Your task to perform on an android device: Add logitech g903 to the cart on amazon.com Image 0: 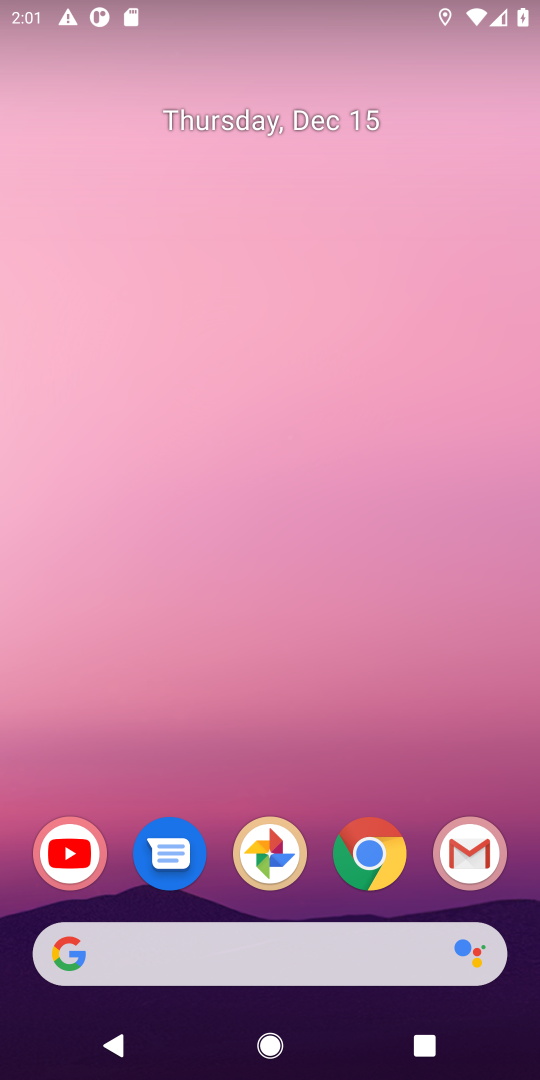
Step 0: drag from (187, 848) to (236, 125)
Your task to perform on an android device: Add logitech g903 to the cart on amazon.com Image 1: 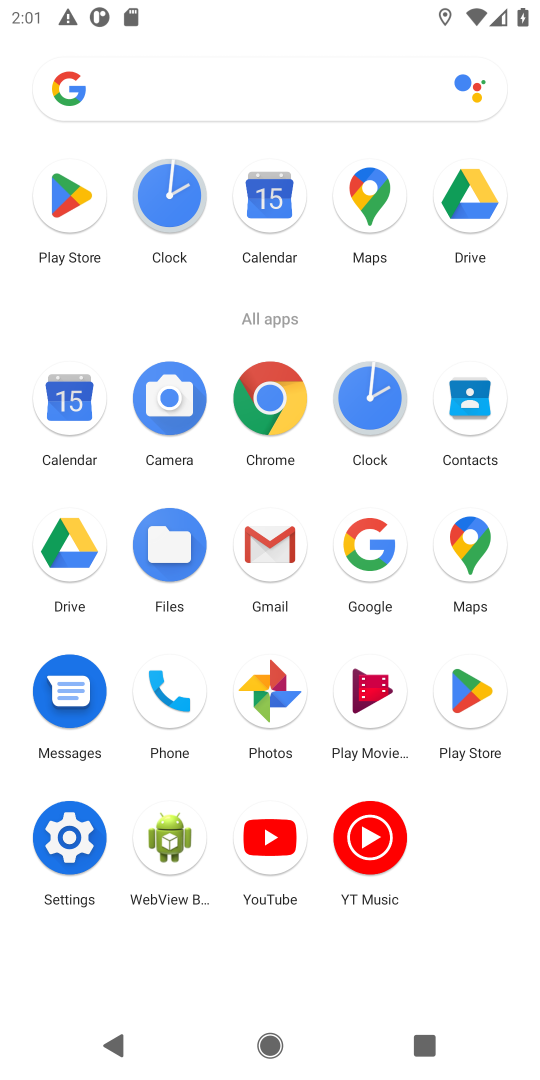
Step 1: click (353, 538)
Your task to perform on an android device: Add logitech g903 to the cart on amazon.com Image 2: 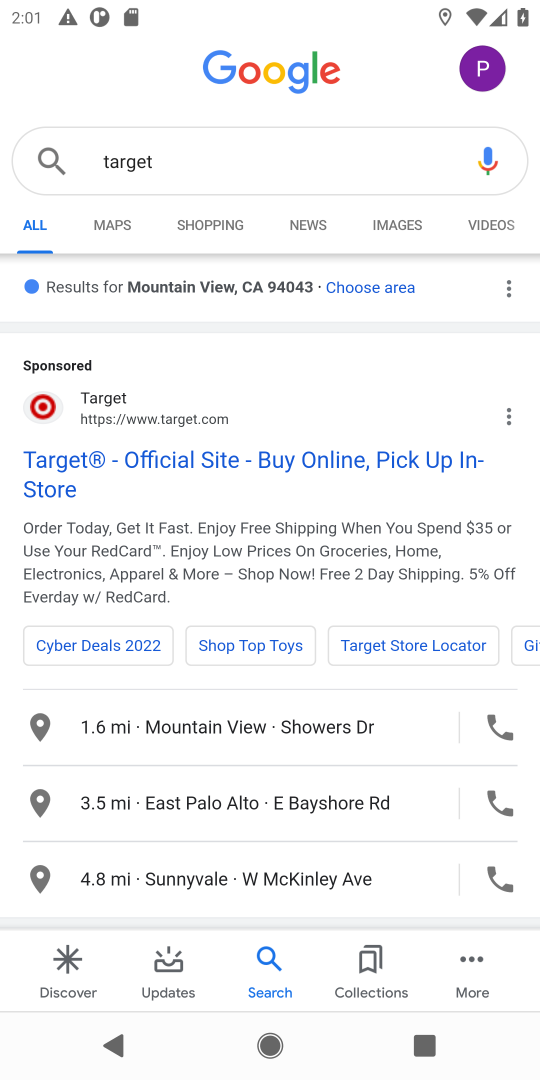
Step 2: click (134, 154)
Your task to perform on an android device: Add logitech g903 to the cart on amazon.com Image 3: 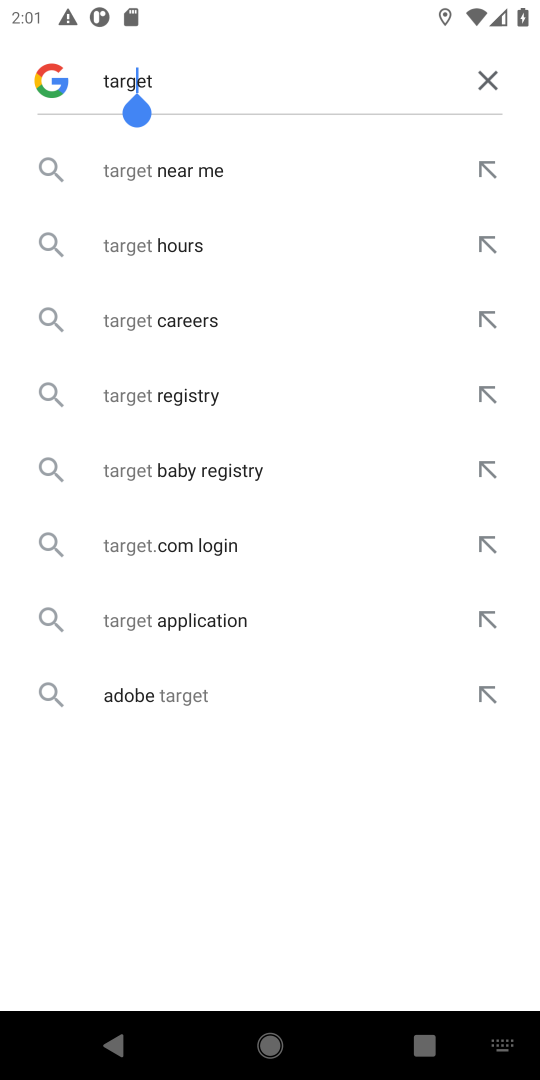
Step 3: click (494, 75)
Your task to perform on an android device: Add logitech g903 to the cart on amazon.com Image 4: 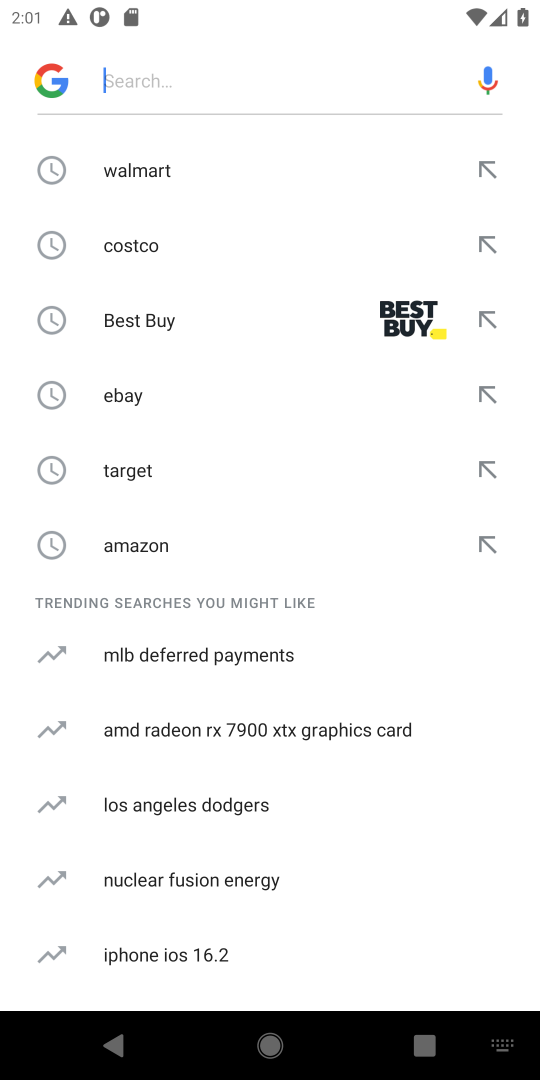
Step 4: click (122, 535)
Your task to perform on an android device: Add logitech g903 to the cart on amazon.com Image 5: 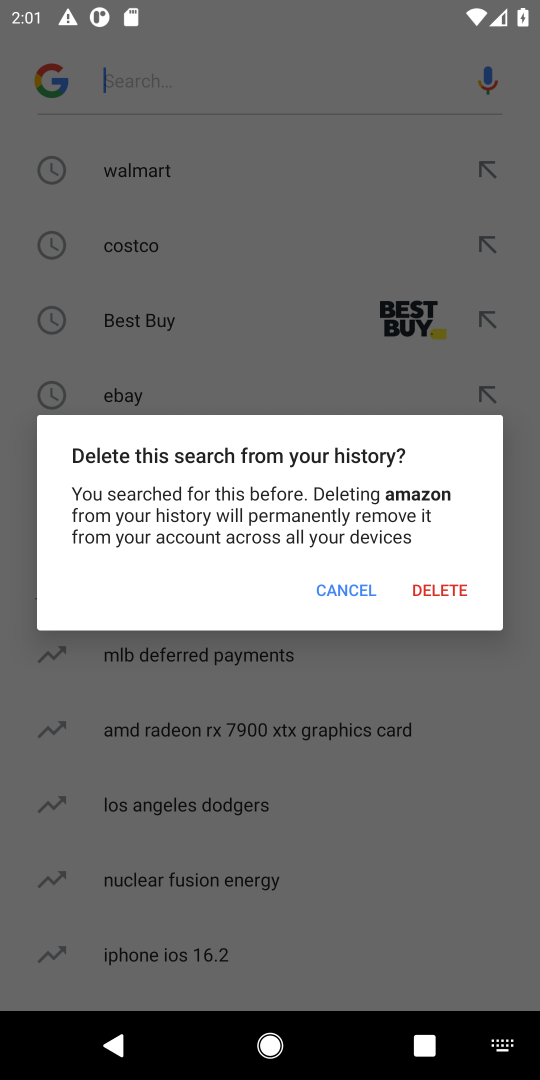
Step 5: click (338, 586)
Your task to perform on an android device: Add logitech g903 to the cart on amazon.com Image 6: 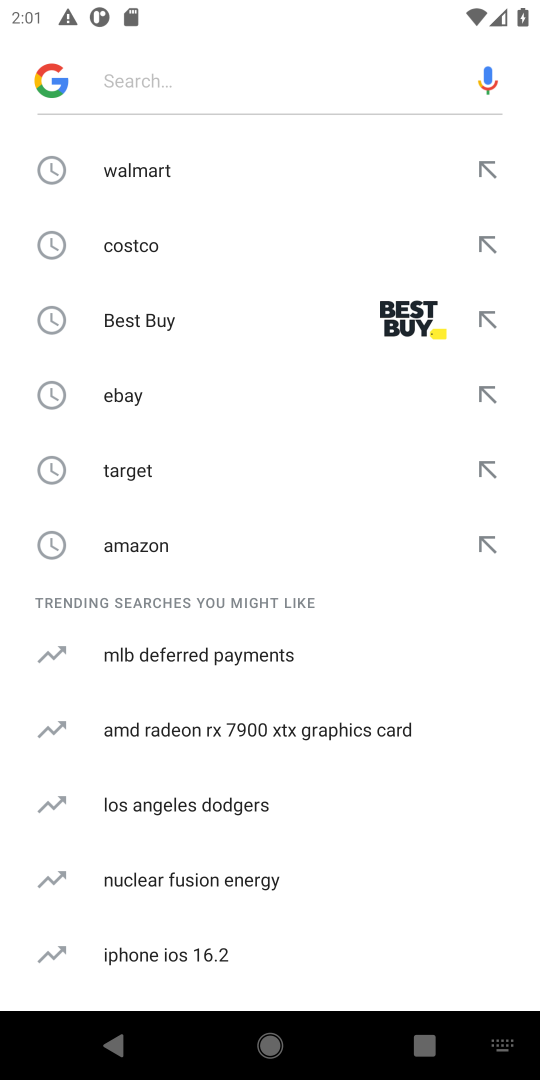
Step 6: click (137, 547)
Your task to perform on an android device: Add logitech g903 to the cart on amazon.com Image 7: 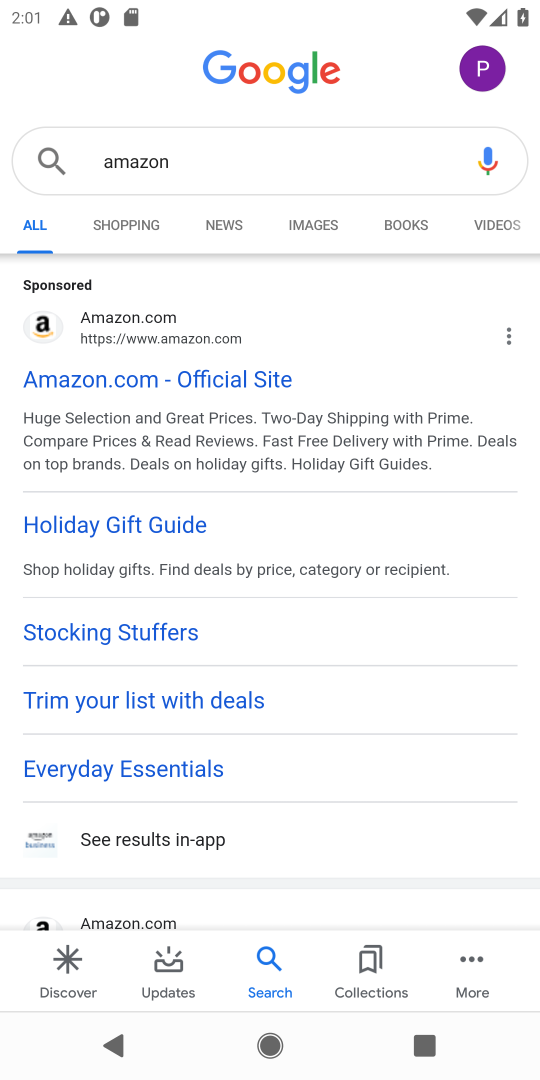
Step 7: click (133, 372)
Your task to perform on an android device: Add logitech g903 to the cart on amazon.com Image 8: 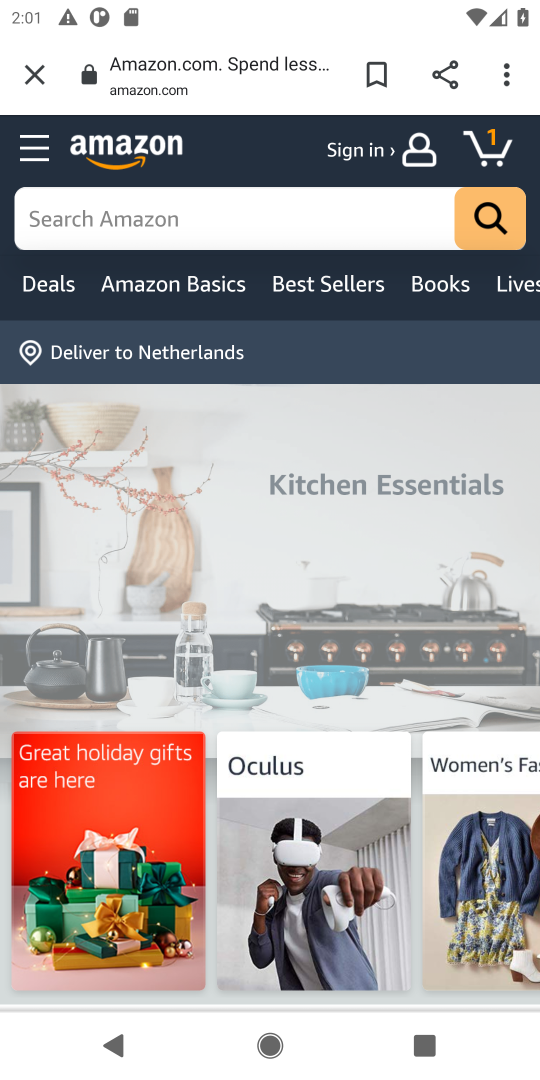
Step 8: click (150, 231)
Your task to perform on an android device: Add logitech g903 to the cart on amazon.com Image 9: 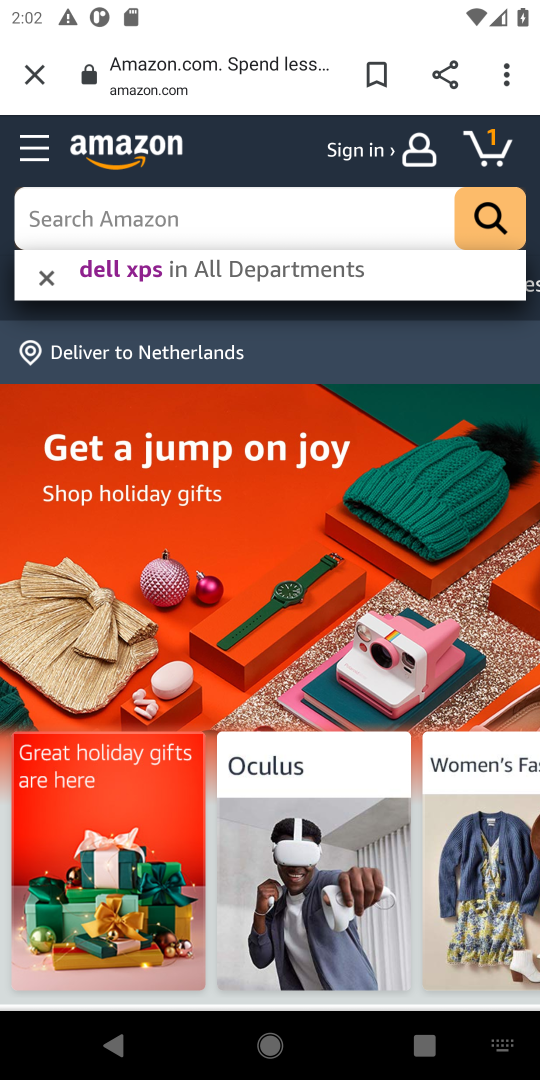
Step 9: type "logitech g903"
Your task to perform on an android device: Add logitech g903 to the cart on amazon.com Image 10: 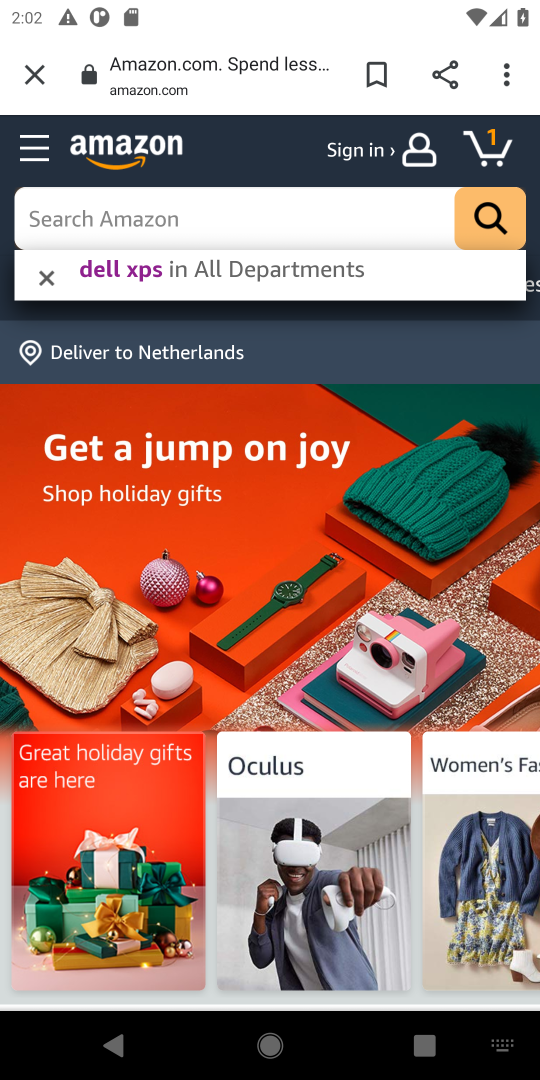
Step 10: click (478, 215)
Your task to perform on an android device: Add logitech g903 to the cart on amazon.com Image 11: 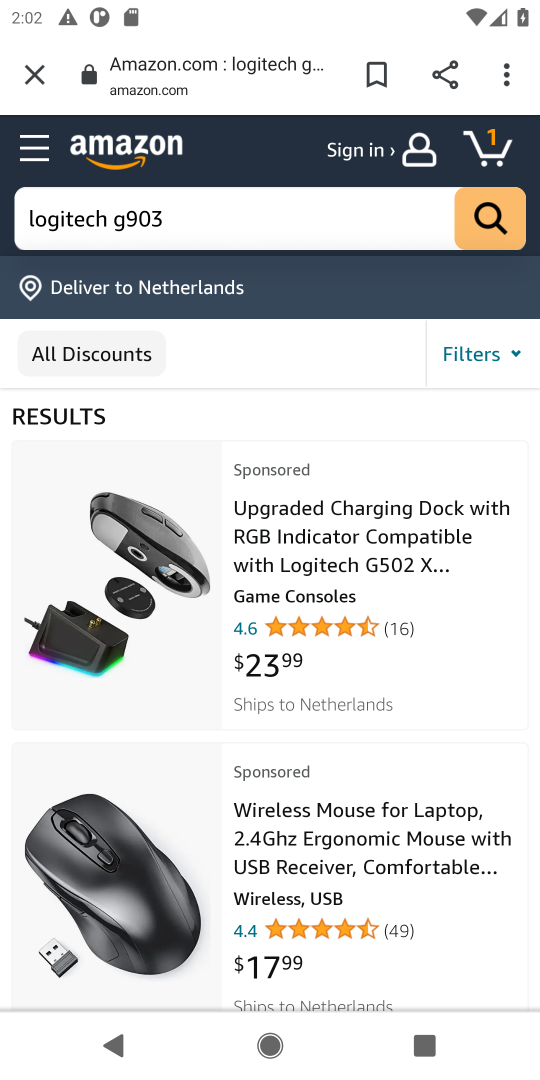
Step 11: click (293, 510)
Your task to perform on an android device: Add logitech g903 to the cart on amazon.com Image 12: 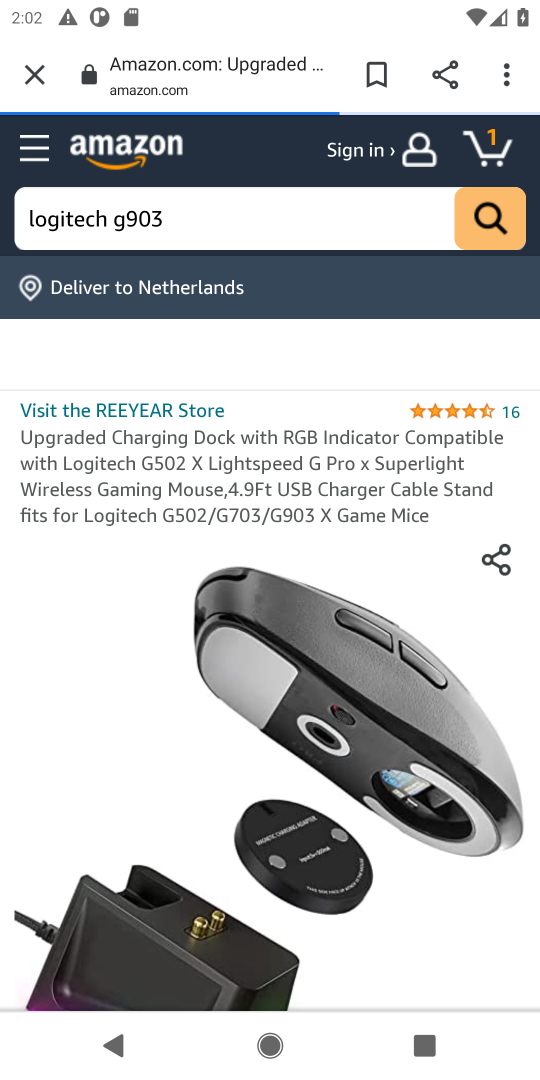
Step 12: drag from (358, 908) to (354, 350)
Your task to perform on an android device: Add logitech g903 to the cart on amazon.com Image 13: 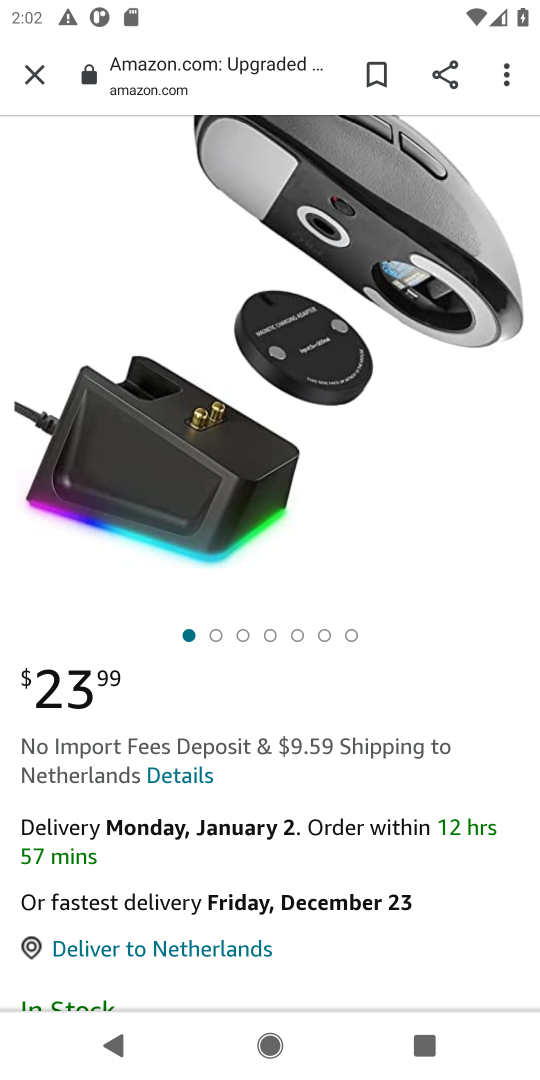
Step 13: drag from (334, 921) to (264, 421)
Your task to perform on an android device: Add logitech g903 to the cart on amazon.com Image 14: 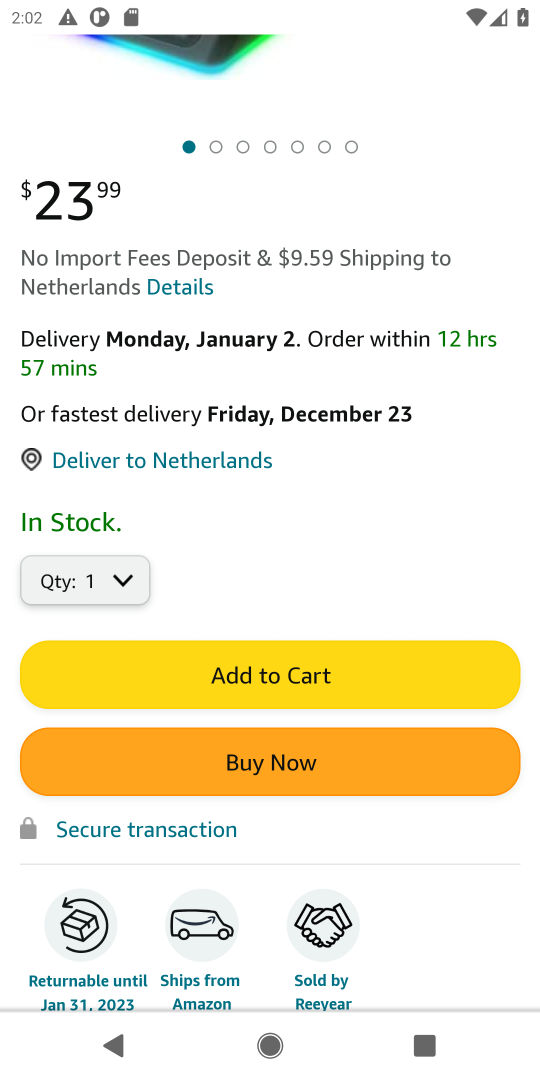
Step 14: click (256, 654)
Your task to perform on an android device: Add logitech g903 to the cart on amazon.com Image 15: 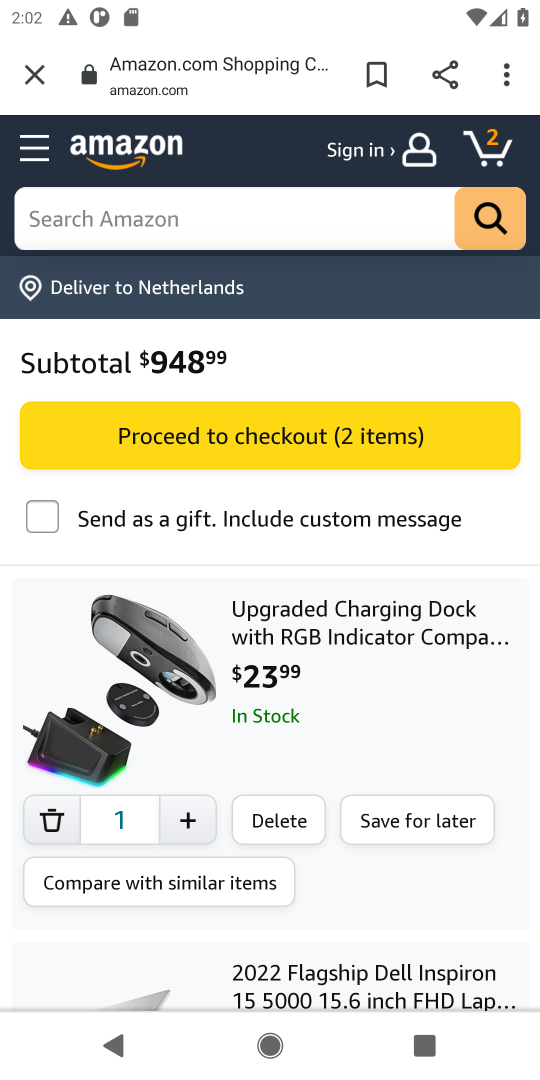
Step 15: task complete